Your task to perform on an android device: toggle location history Image 0: 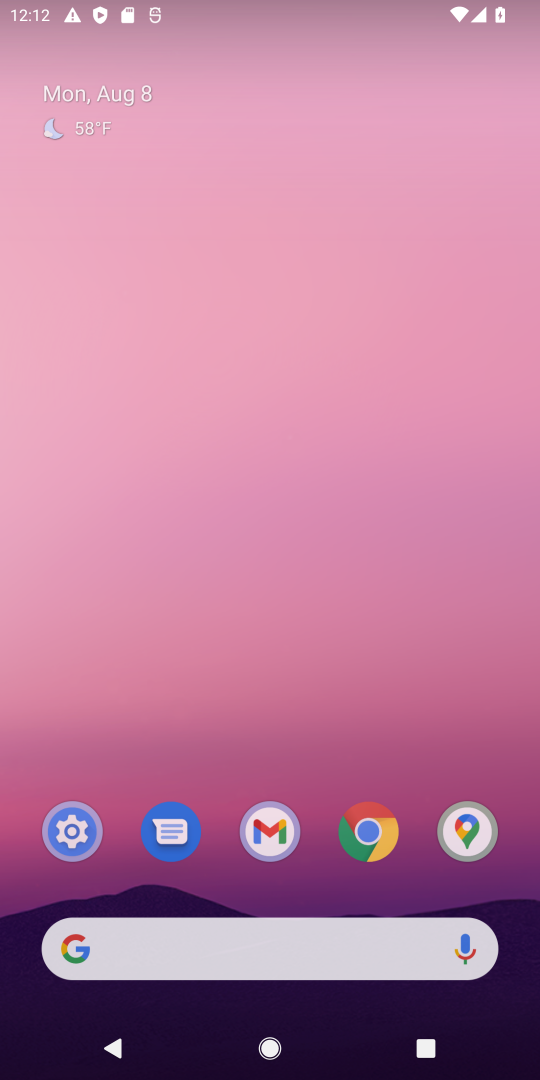
Step 0: press home button
Your task to perform on an android device: toggle location history Image 1: 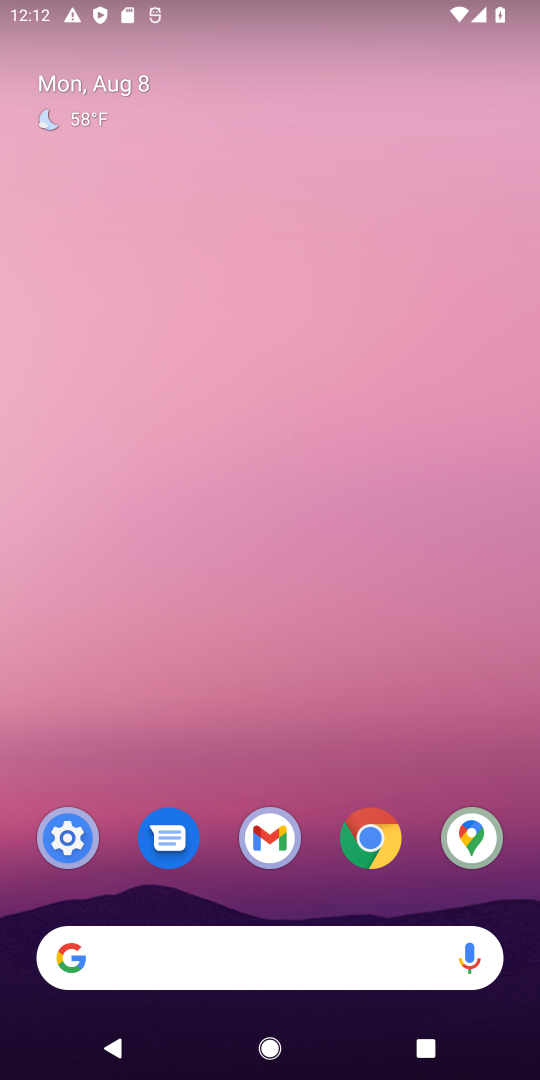
Step 1: drag from (214, 895) to (293, 191)
Your task to perform on an android device: toggle location history Image 2: 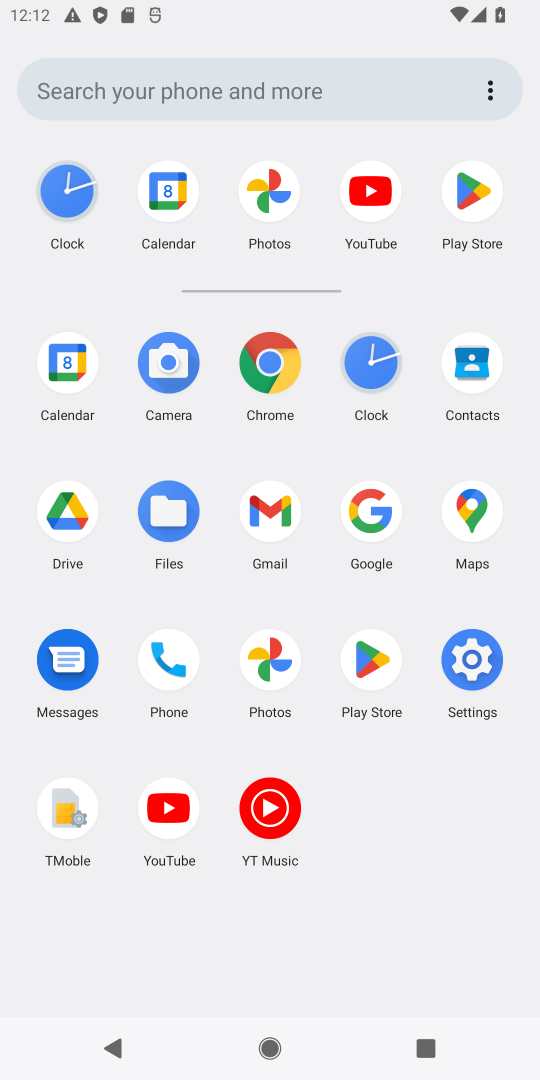
Step 2: click (475, 660)
Your task to perform on an android device: toggle location history Image 3: 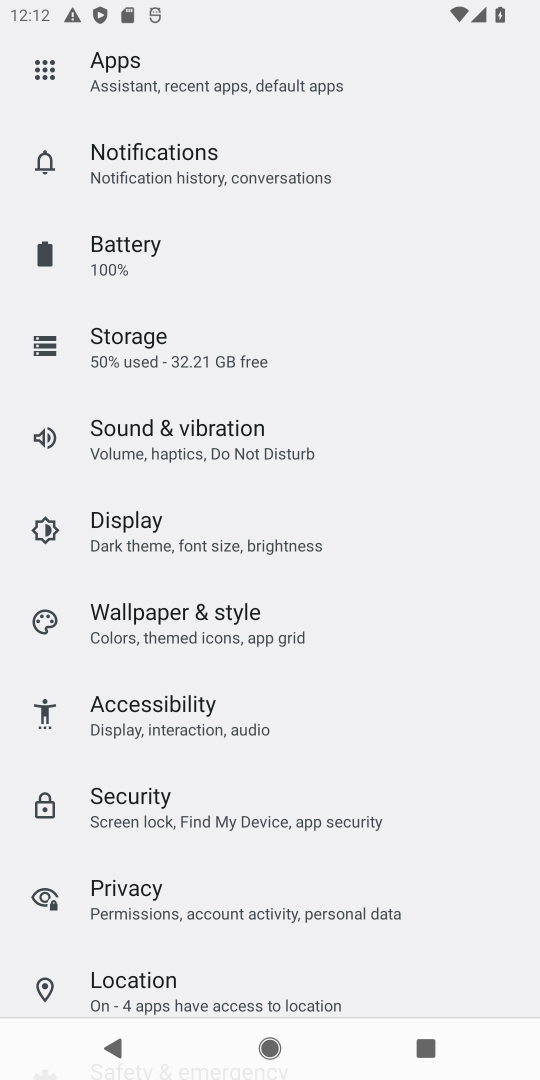
Step 3: click (171, 980)
Your task to perform on an android device: toggle location history Image 4: 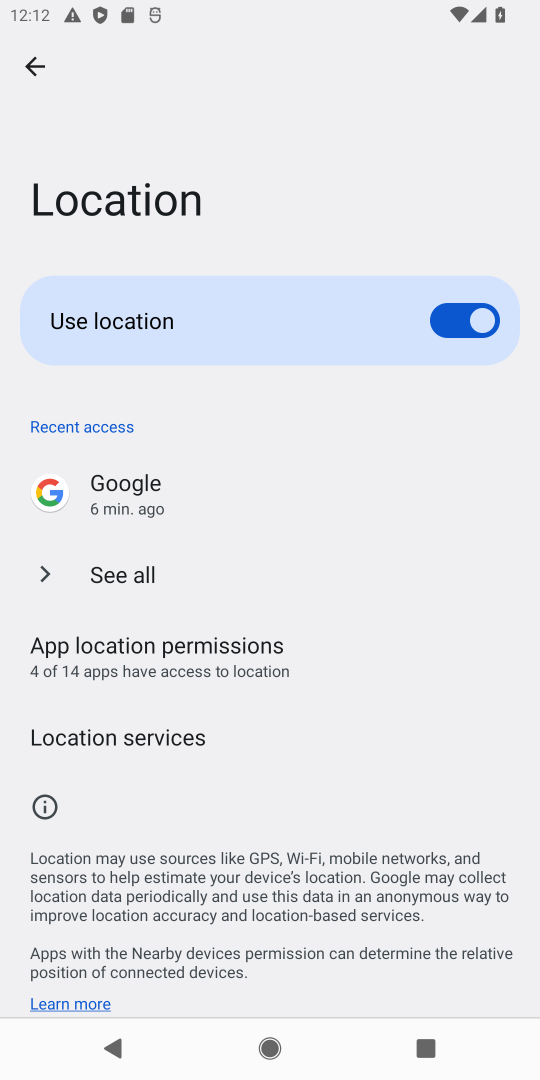
Step 4: click (124, 741)
Your task to perform on an android device: toggle location history Image 5: 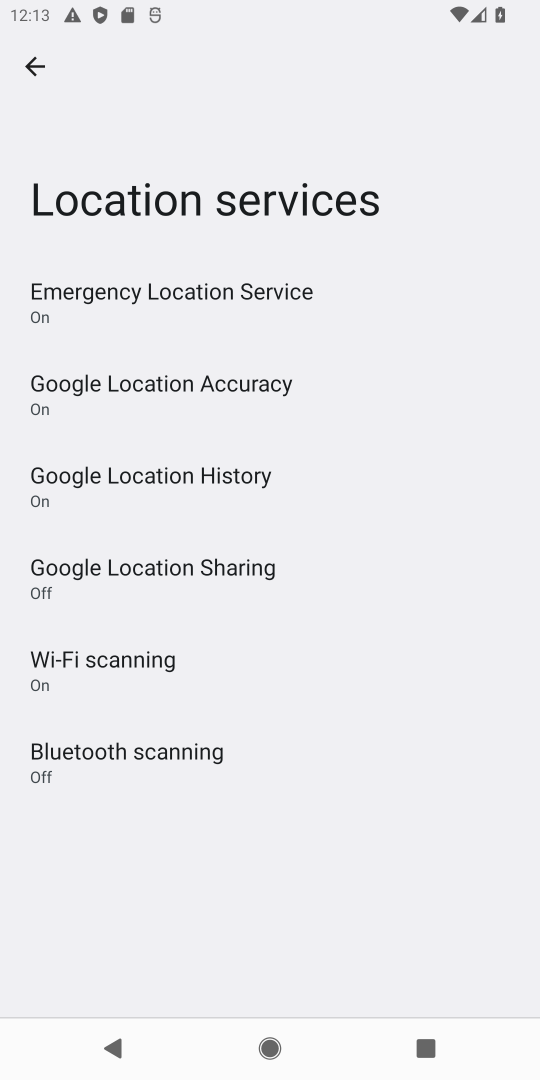
Step 5: click (152, 478)
Your task to perform on an android device: toggle location history Image 6: 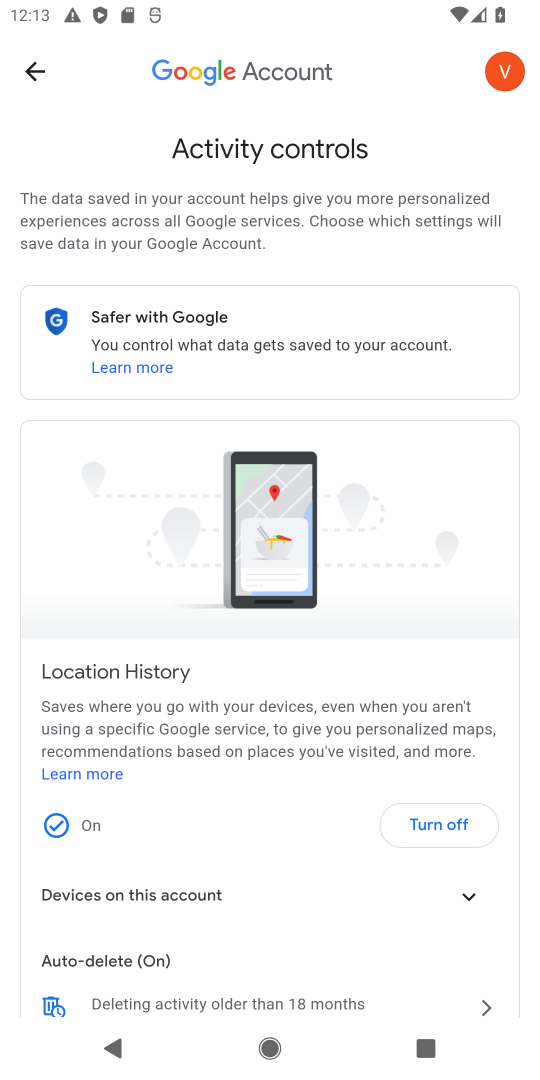
Step 6: click (446, 825)
Your task to perform on an android device: toggle location history Image 7: 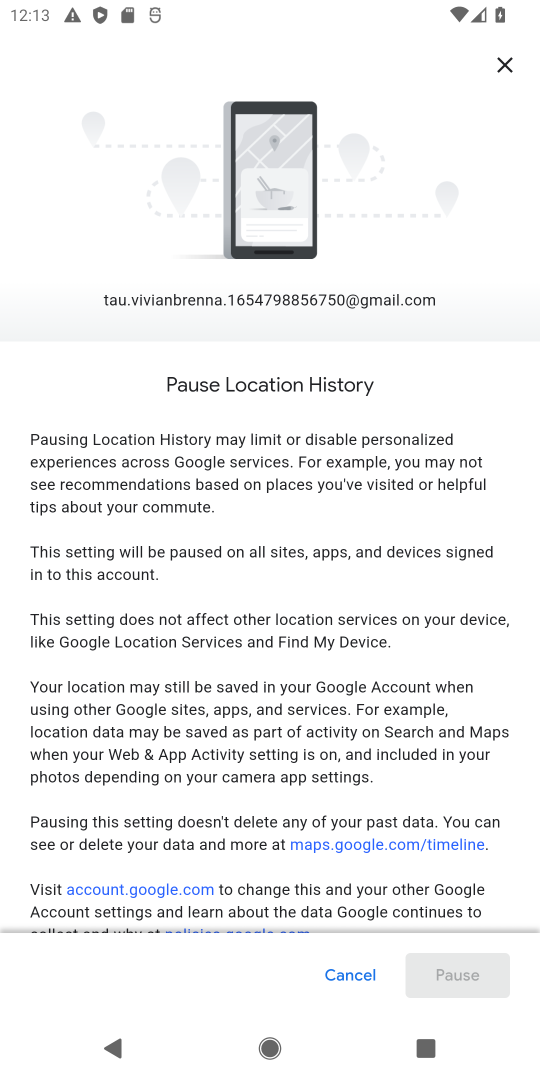
Step 7: drag from (488, 828) to (433, 263)
Your task to perform on an android device: toggle location history Image 8: 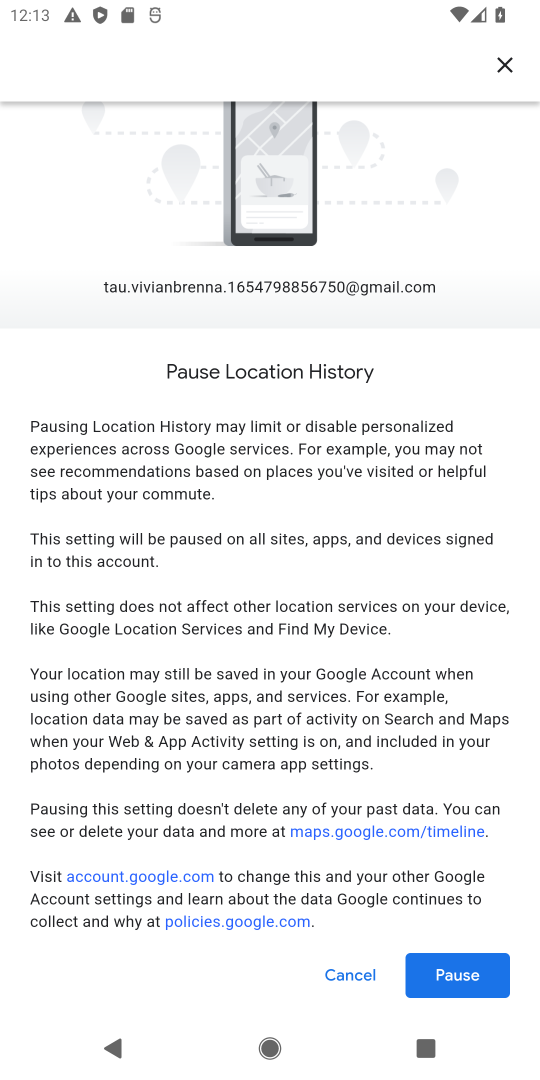
Step 8: click (425, 982)
Your task to perform on an android device: toggle location history Image 9: 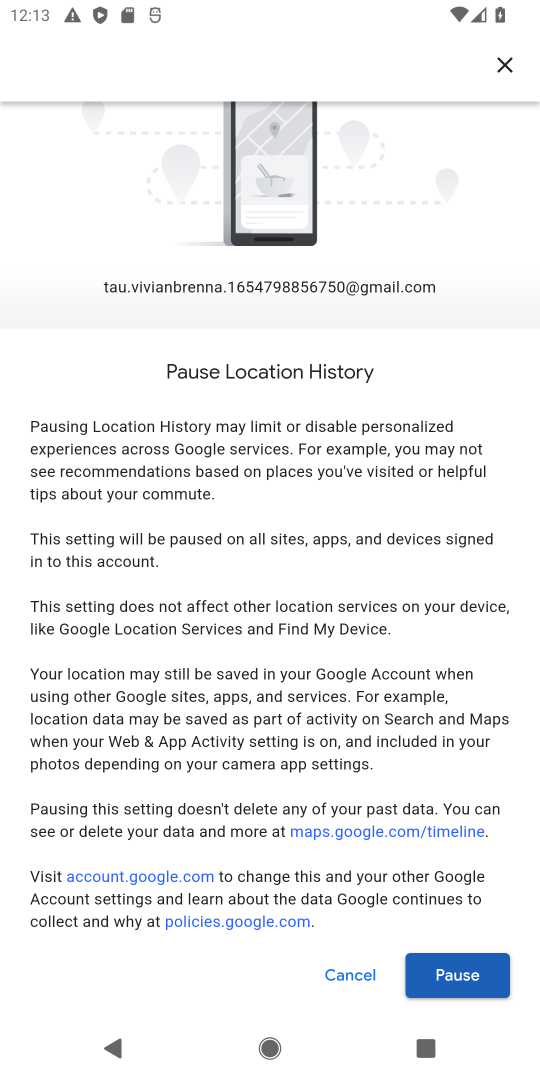
Step 9: click (433, 984)
Your task to perform on an android device: toggle location history Image 10: 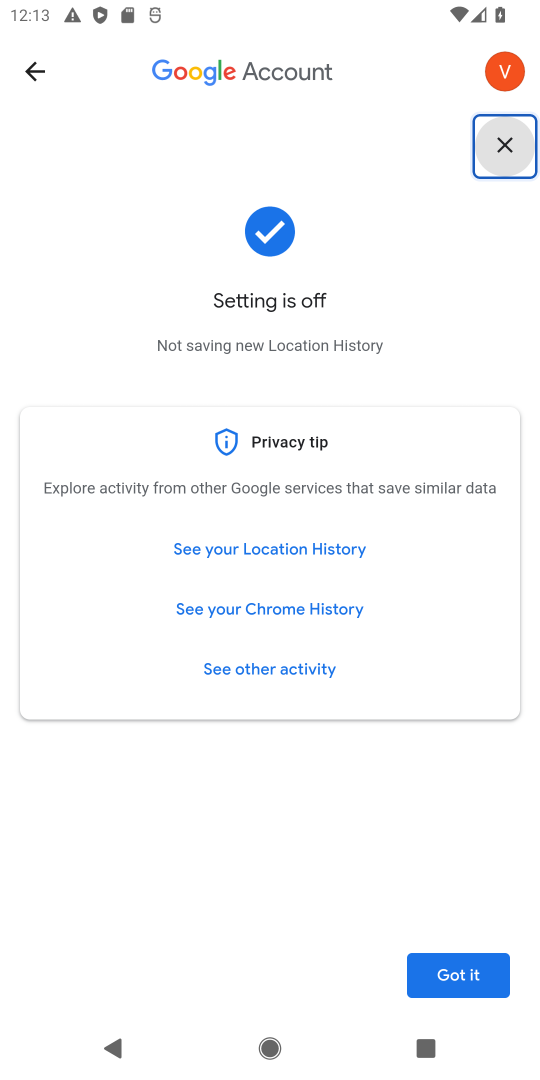
Step 10: click (453, 972)
Your task to perform on an android device: toggle location history Image 11: 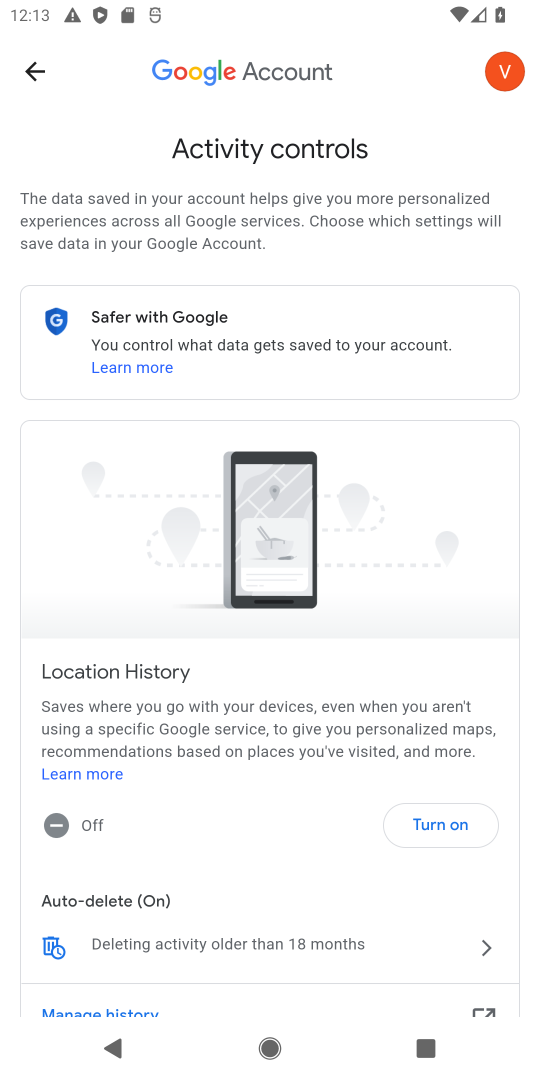
Step 11: task complete